Your task to perform on an android device: open a bookmark in the chrome app Image 0: 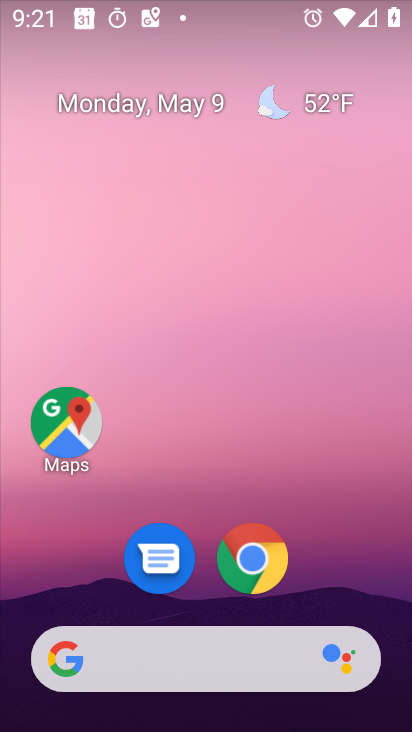
Step 0: click (234, 556)
Your task to perform on an android device: open a bookmark in the chrome app Image 1: 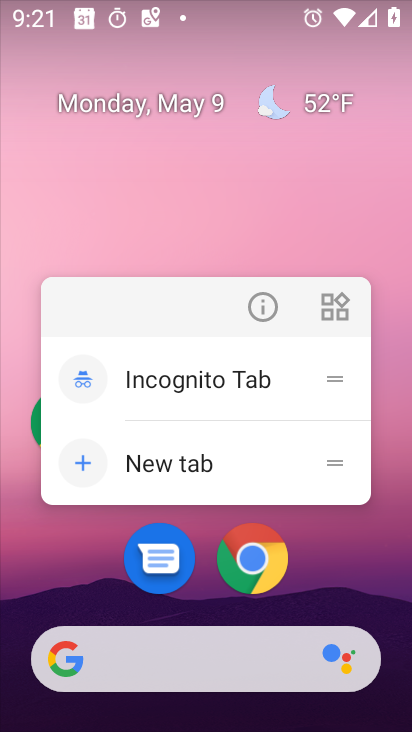
Step 1: click (248, 547)
Your task to perform on an android device: open a bookmark in the chrome app Image 2: 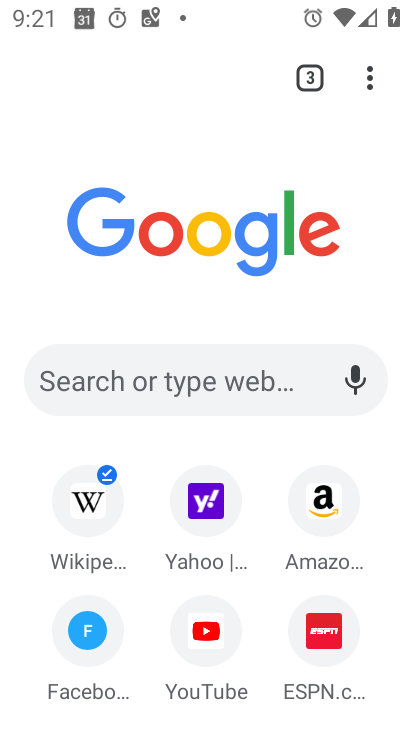
Step 2: drag from (371, 80) to (128, 293)
Your task to perform on an android device: open a bookmark in the chrome app Image 3: 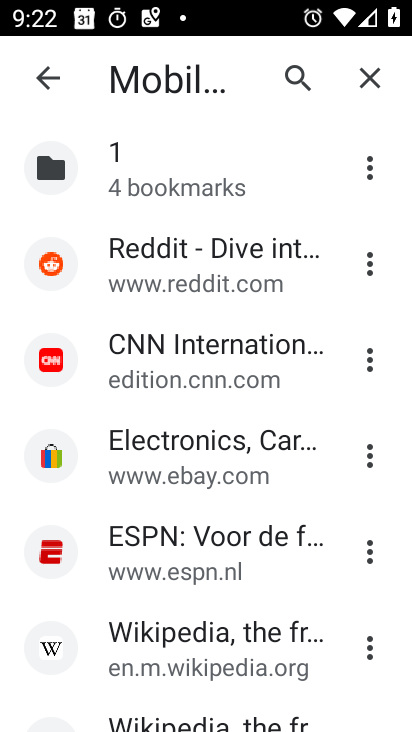
Step 3: click (201, 277)
Your task to perform on an android device: open a bookmark in the chrome app Image 4: 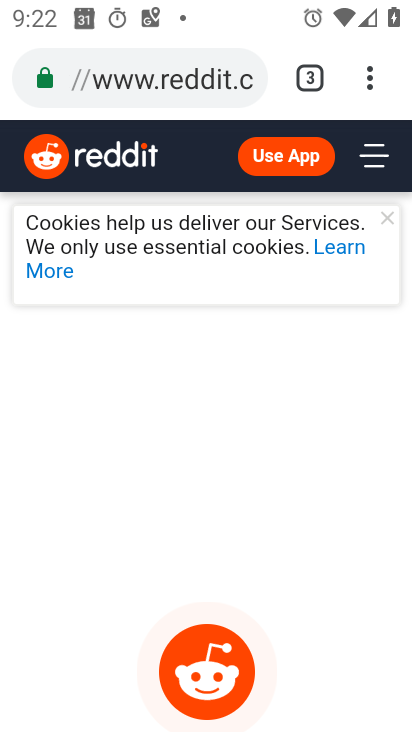
Step 4: task complete